Your task to perform on an android device: Go to Google Image 0: 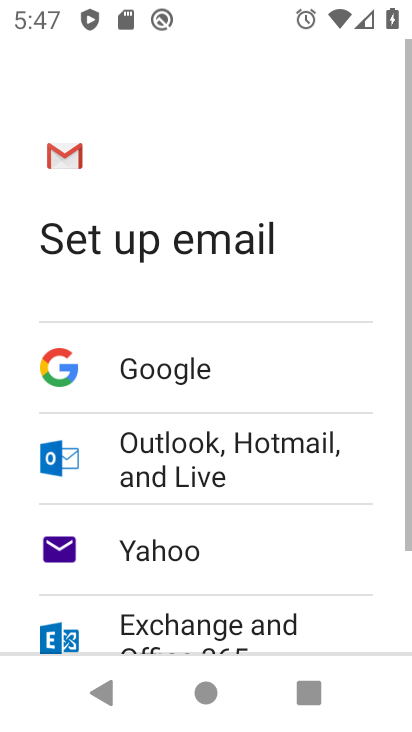
Step 0: press home button
Your task to perform on an android device: Go to Google Image 1: 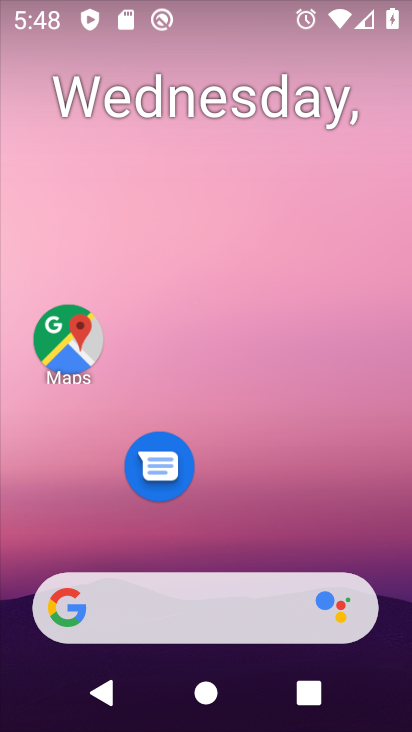
Step 1: drag from (232, 517) to (238, 87)
Your task to perform on an android device: Go to Google Image 2: 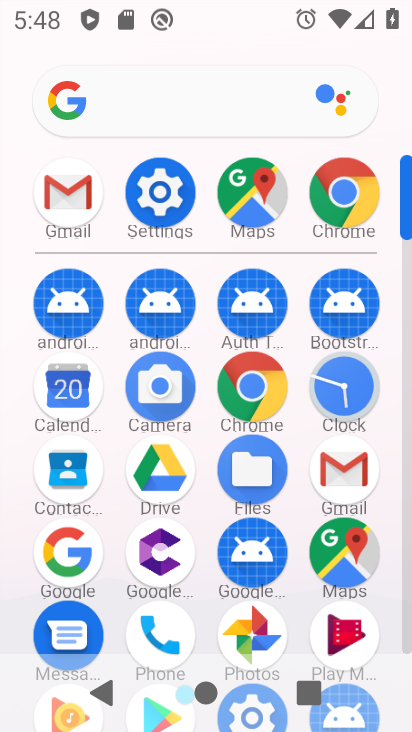
Step 2: drag from (204, 294) to (215, 76)
Your task to perform on an android device: Go to Google Image 3: 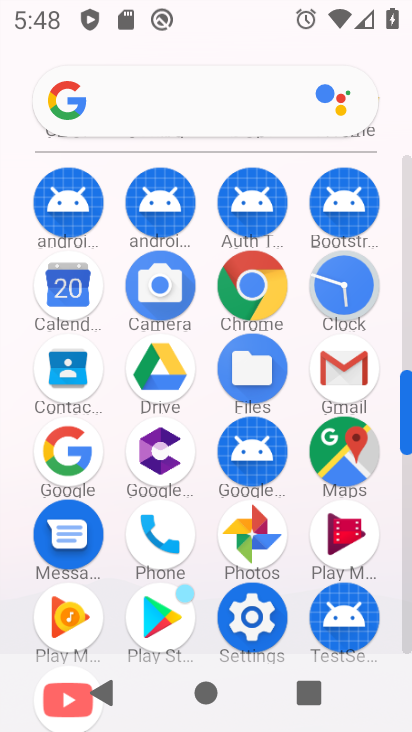
Step 3: click (69, 460)
Your task to perform on an android device: Go to Google Image 4: 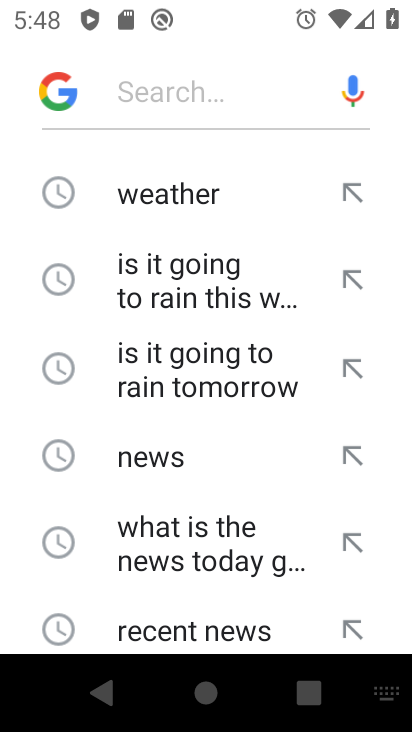
Step 4: task complete